Your task to perform on an android device: Do I have any events today? Image 0: 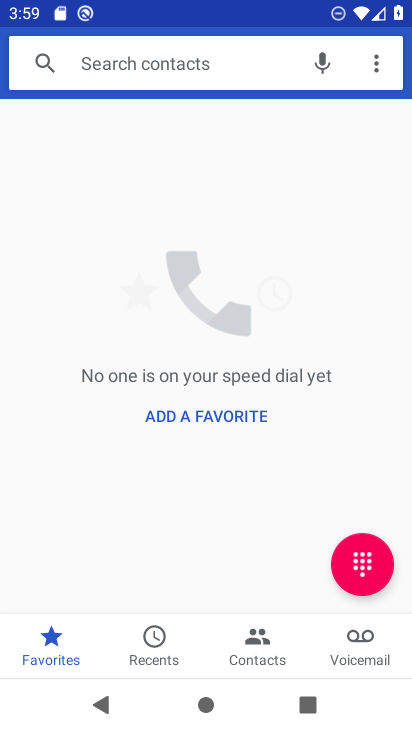
Step 0: press home button
Your task to perform on an android device: Do I have any events today? Image 1: 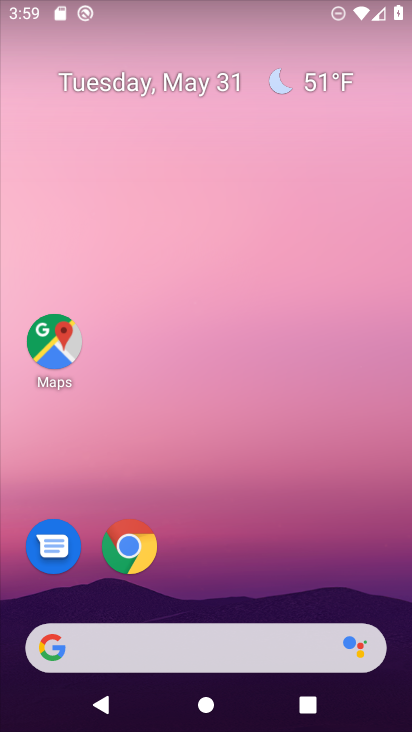
Step 1: drag from (176, 577) to (174, 116)
Your task to perform on an android device: Do I have any events today? Image 2: 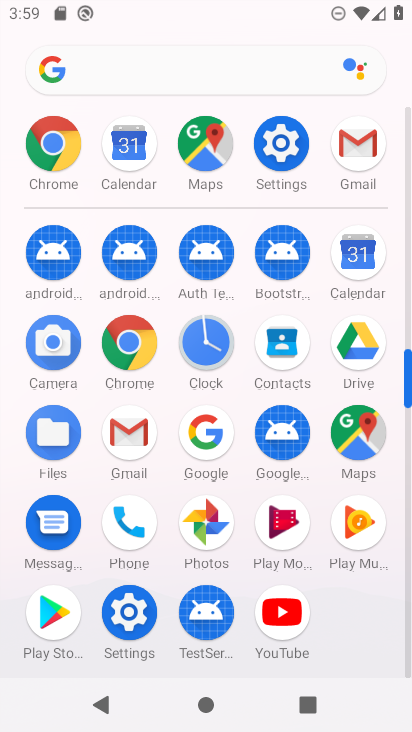
Step 2: click (349, 289)
Your task to perform on an android device: Do I have any events today? Image 3: 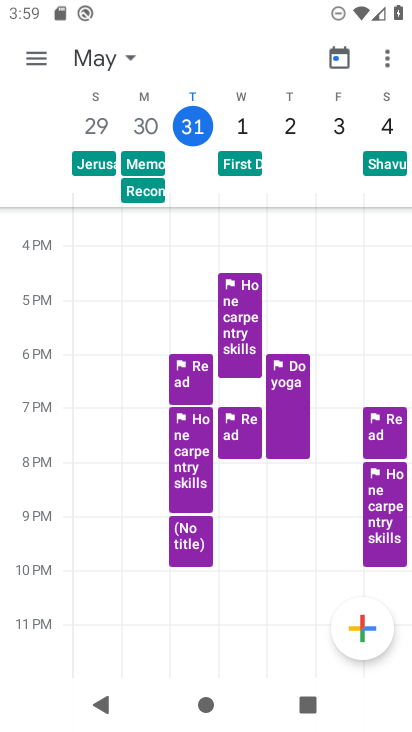
Step 3: click (34, 55)
Your task to perform on an android device: Do I have any events today? Image 4: 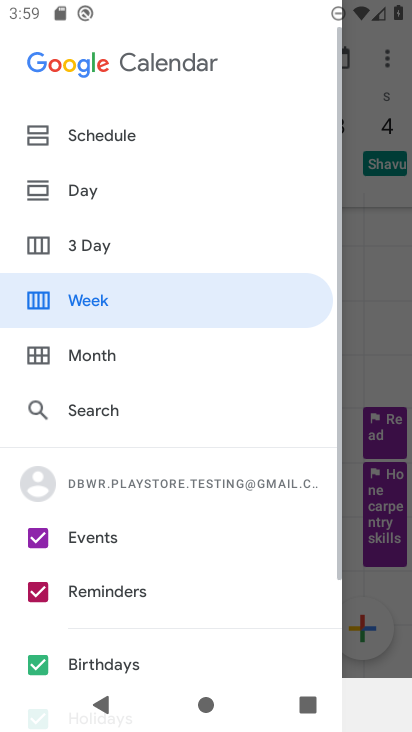
Step 4: click (89, 191)
Your task to perform on an android device: Do I have any events today? Image 5: 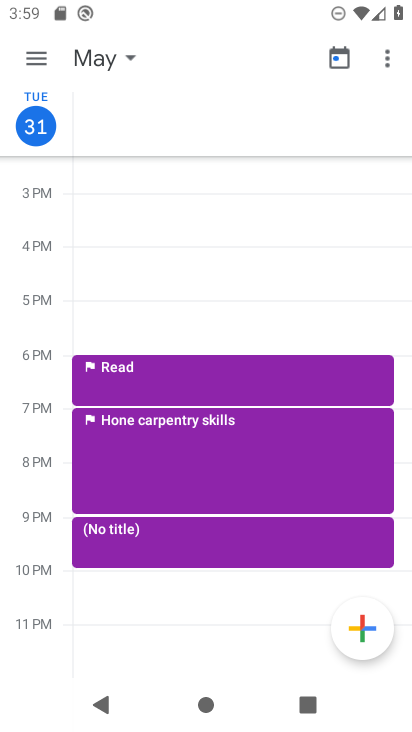
Step 5: task complete